Your task to perform on an android device: See recent photos Image 0: 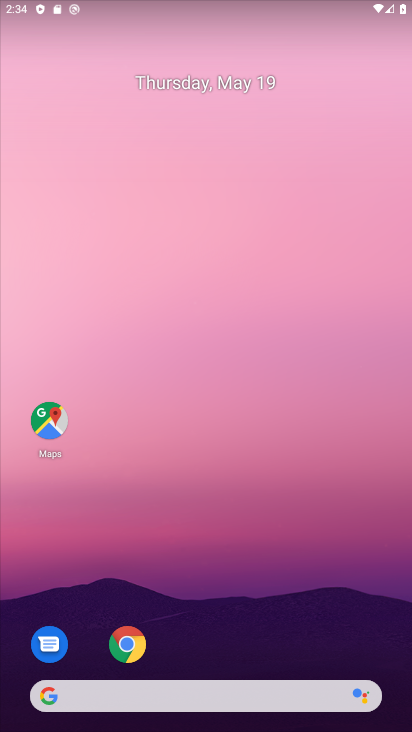
Step 0: drag from (256, 589) to (252, 252)
Your task to perform on an android device: See recent photos Image 1: 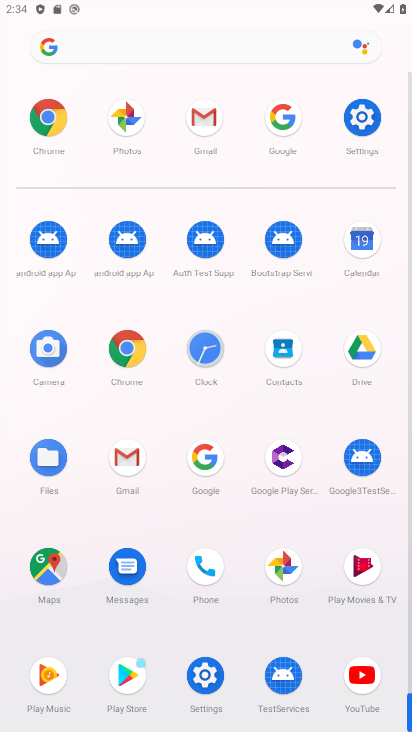
Step 1: click (272, 560)
Your task to perform on an android device: See recent photos Image 2: 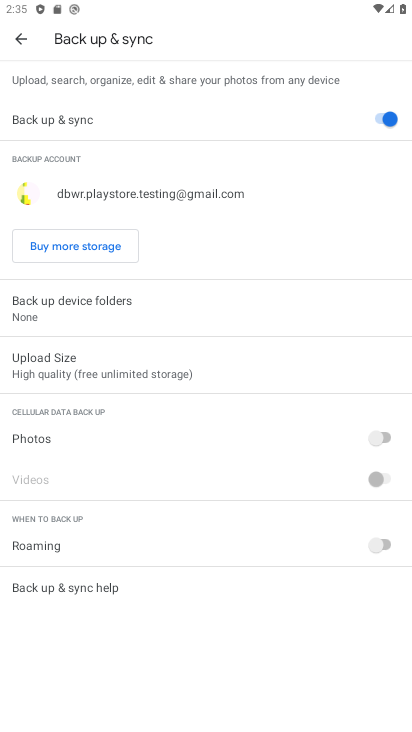
Step 2: click (18, 49)
Your task to perform on an android device: See recent photos Image 3: 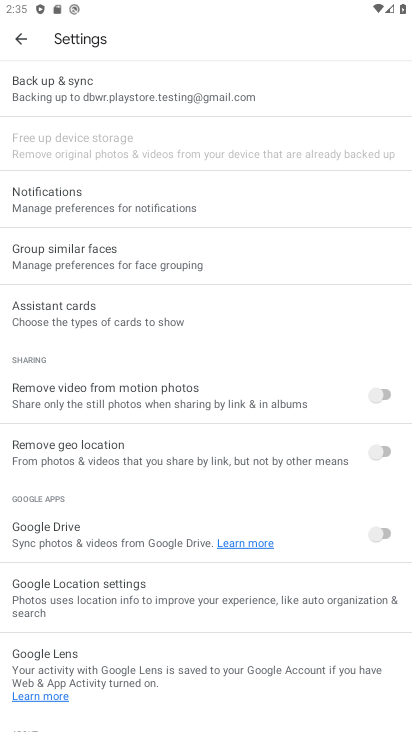
Step 3: click (19, 48)
Your task to perform on an android device: See recent photos Image 4: 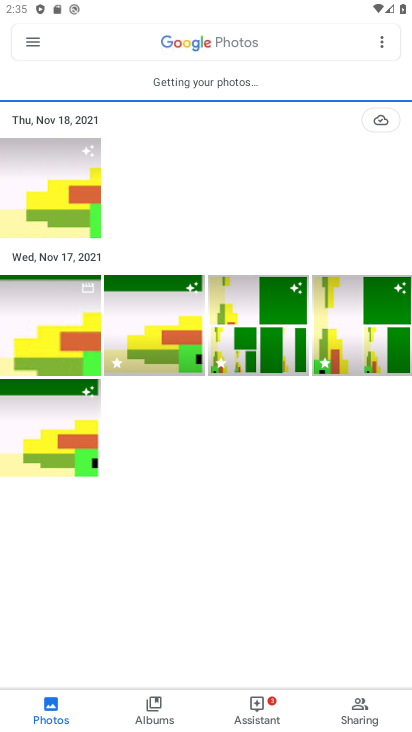
Step 4: click (121, 326)
Your task to perform on an android device: See recent photos Image 5: 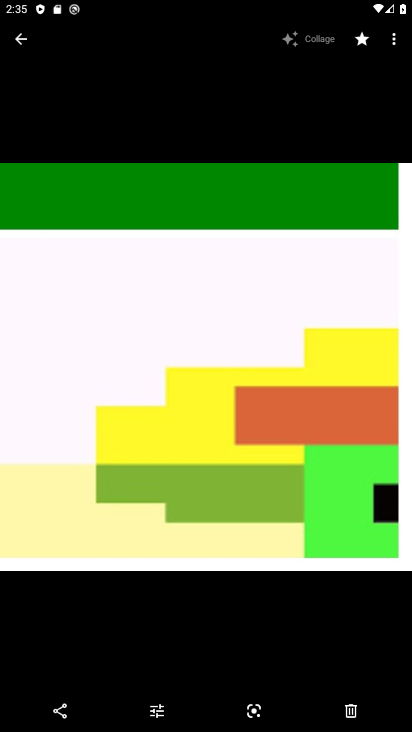
Step 5: task complete